Your task to perform on an android device: Open Google Chrome Image 0: 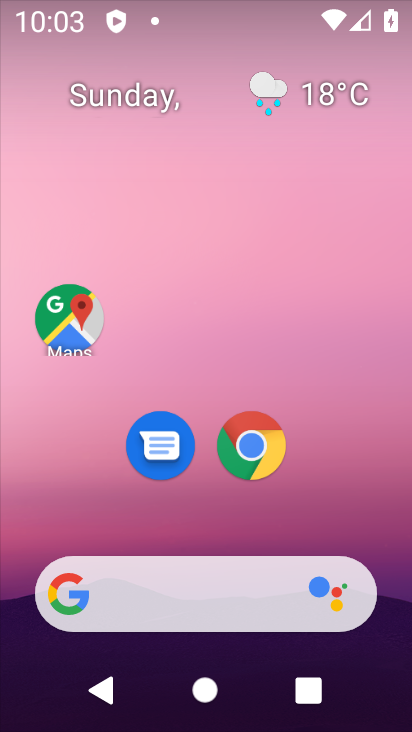
Step 0: click (248, 436)
Your task to perform on an android device: Open Google Chrome Image 1: 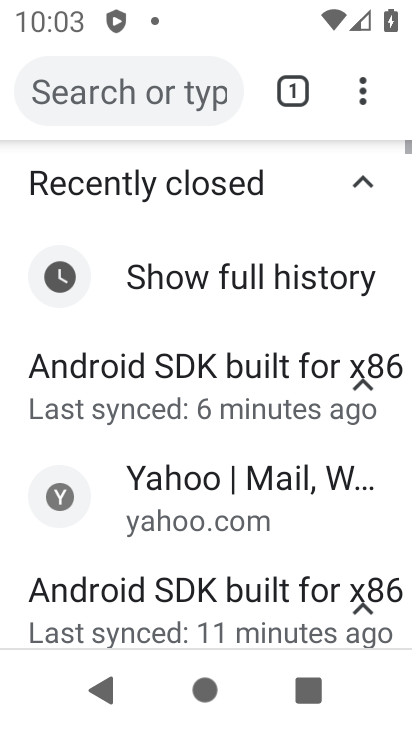
Step 1: click (300, 86)
Your task to perform on an android device: Open Google Chrome Image 2: 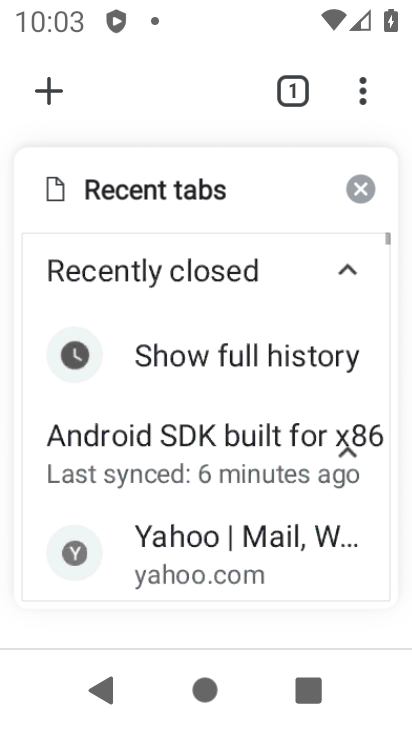
Step 2: click (354, 185)
Your task to perform on an android device: Open Google Chrome Image 3: 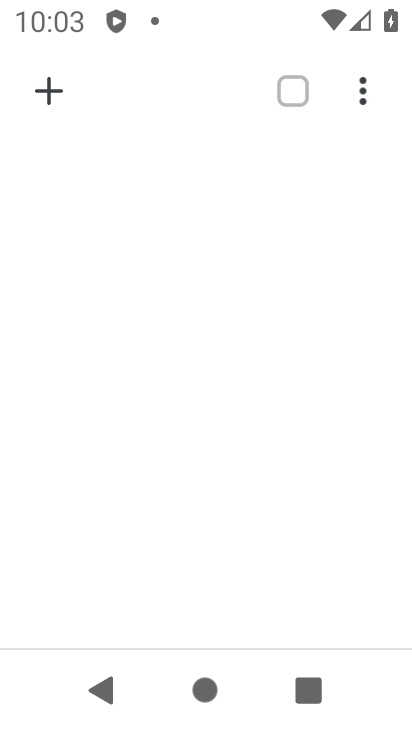
Step 3: click (56, 87)
Your task to perform on an android device: Open Google Chrome Image 4: 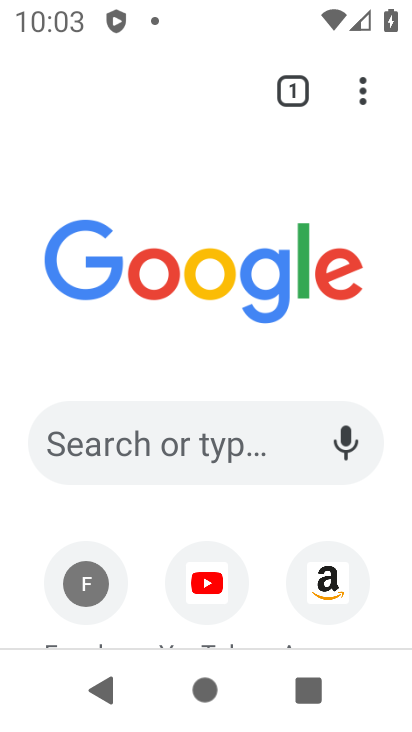
Step 4: task complete